Your task to perform on an android device: Search for Italian restaurants on Maps Image 0: 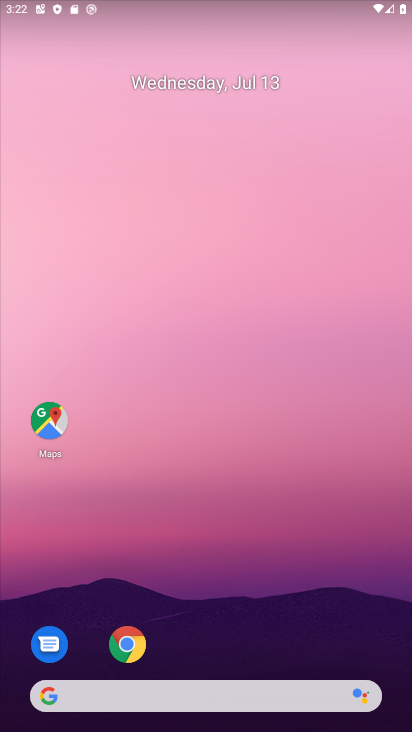
Step 0: drag from (211, 508) to (238, 141)
Your task to perform on an android device: Search for Italian restaurants on Maps Image 1: 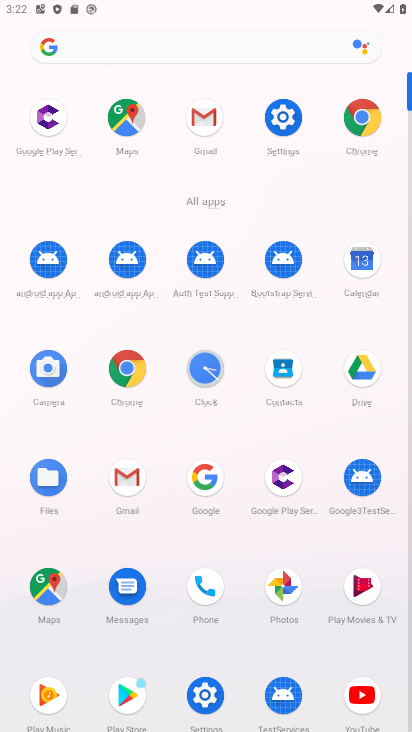
Step 1: click (53, 589)
Your task to perform on an android device: Search for Italian restaurants on Maps Image 2: 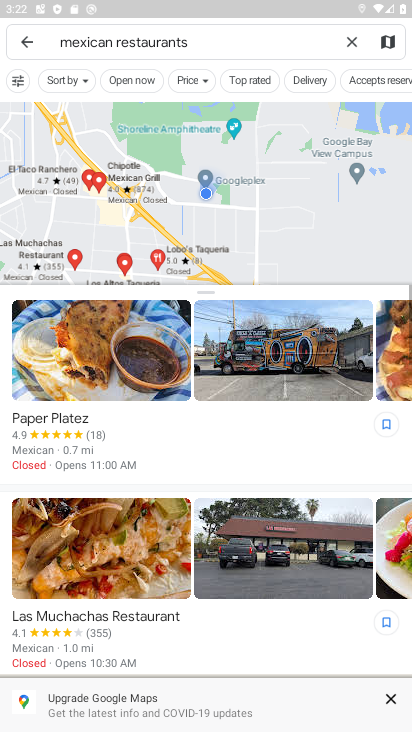
Step 2: click (342, 40)
Your task to perform on an android device: Search for Italian restaurants on Maps Image 3: 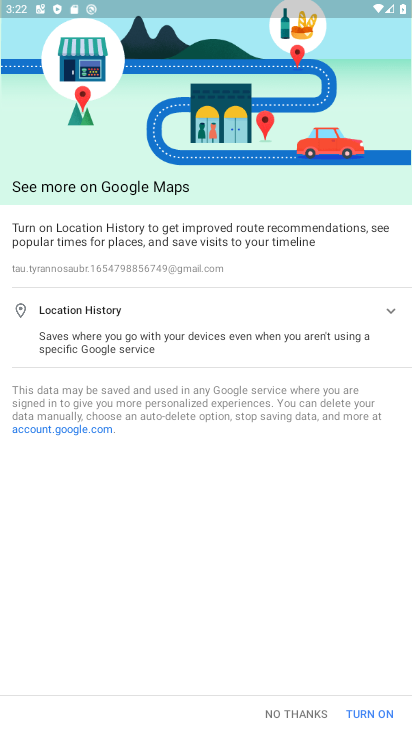
Step 3: click (300, 710)
Your task to perform on an android device: Search for Italian restaurants on Maps Image 4: 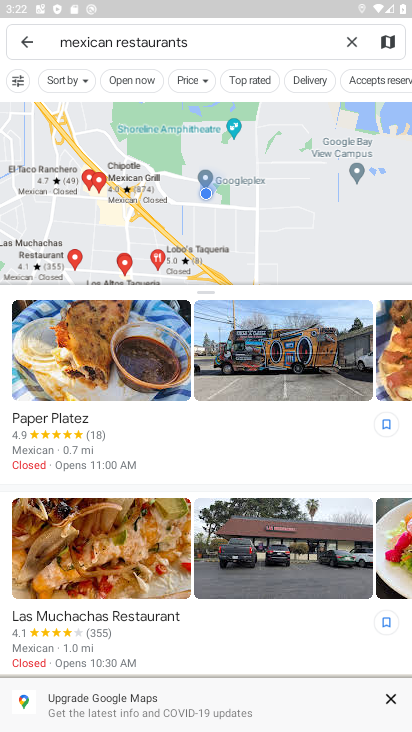
Step 4: click (350, 36)
Your task to perform on an android device: Search for Italian restaurants on Maps Image 5: 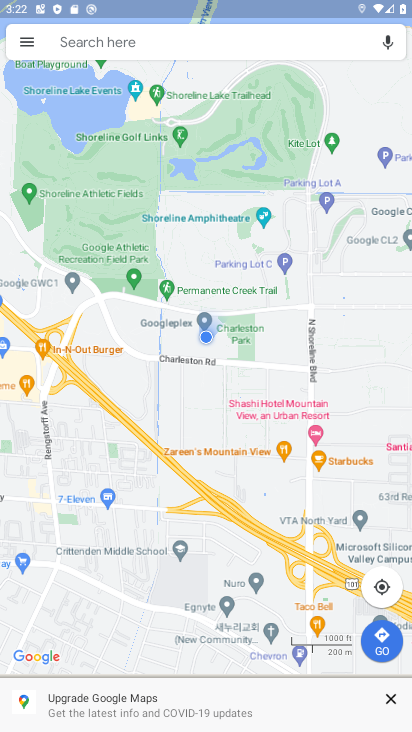
Step 5: click (274, 50)
Your task to perform on an android device: Search for Italian restaurants on Maps Image 6: 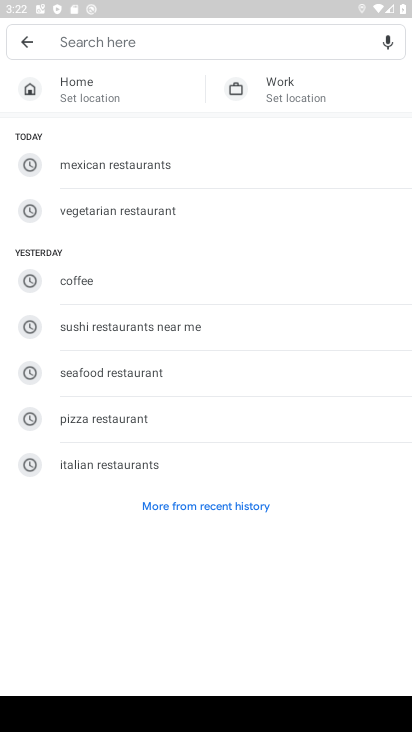
Step 6: type "Italian restaurants"
Your task to perform on an android device: Search for Italian restaurants on Maps Image 7: 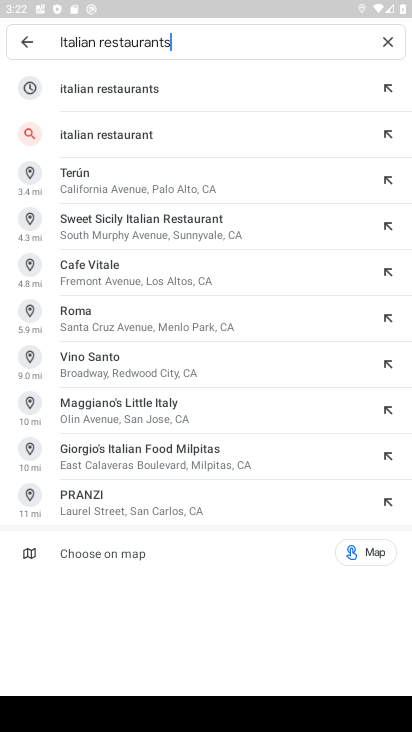
Step 7: click (158, 94)
Your task to perform on an android device: Search for Italian restaurants on Maps Image 8: 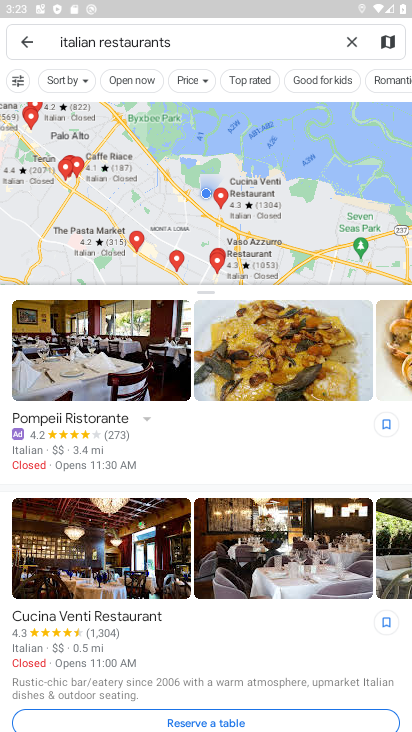
Step 8: task complete